Your task to perform on an android device: turn off location history Image 0: 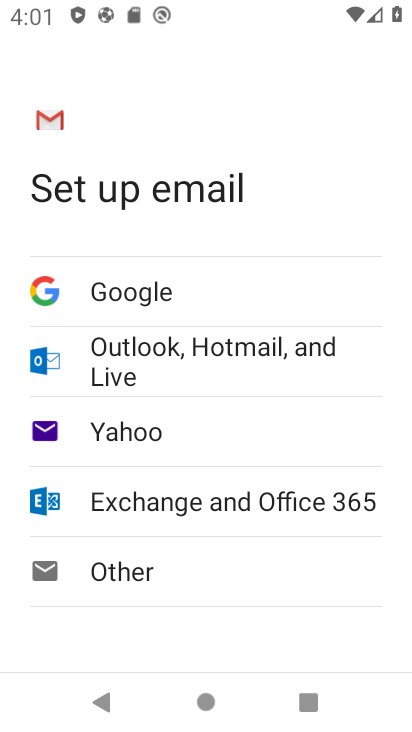
Step 0: press home button
Your task to perform on an android device: turn off location history Image 1: 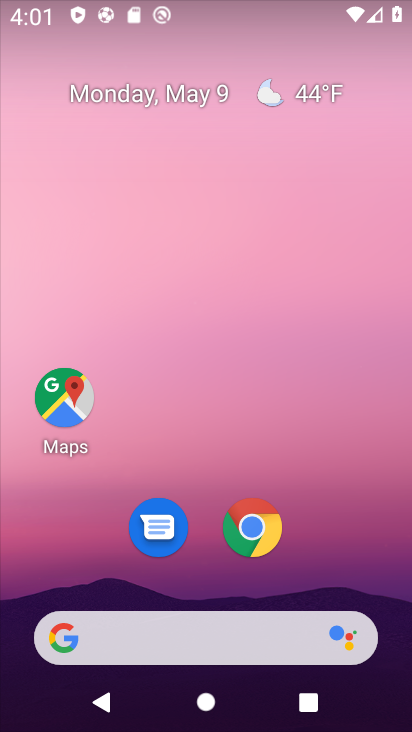
Step 1: drag from (216, 580) to (241, 138)
Your task to perform on an android device: turn off location history Image 2: 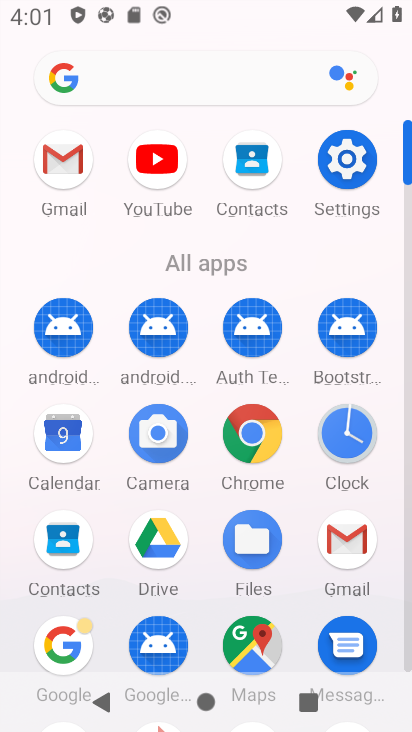
Step 2: click (344, 173)
Your task to perform on an android device: turn off location history Image 3: 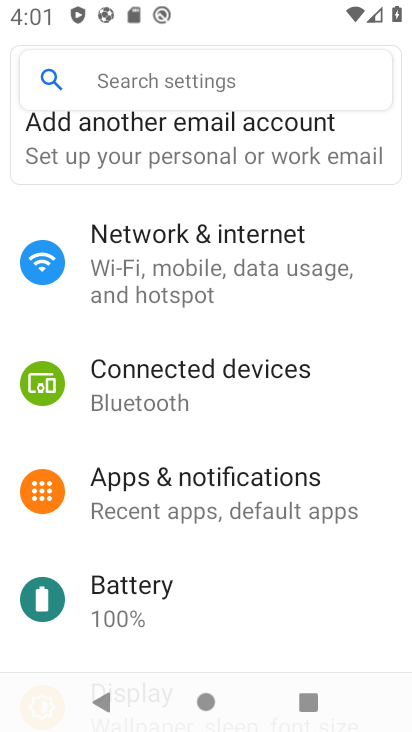
Step 3: drag from (147, 545) to (209, 93)
Your task to perform on an android device: turn off location history Image 4: 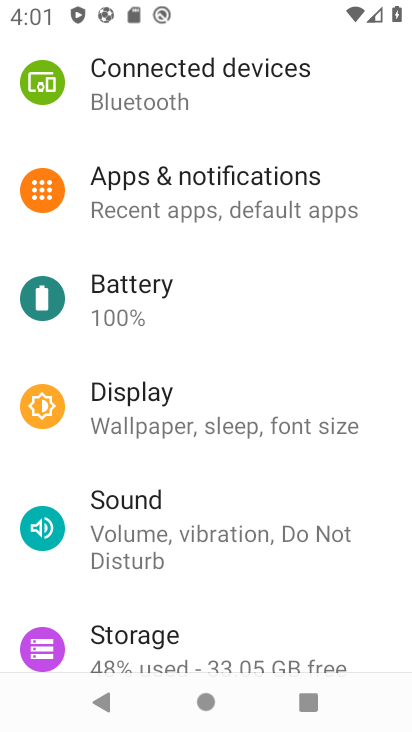
Step 4: drag from (153, 626) to (218, 194)
Your task to perform on an android device: turn off location history Image 5: 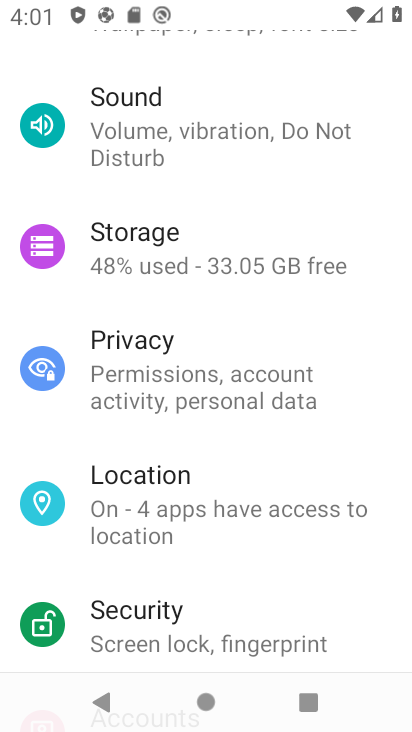
Step 5: click (129, 483)
Your task to perform on an android device: turn off location history Image 6: 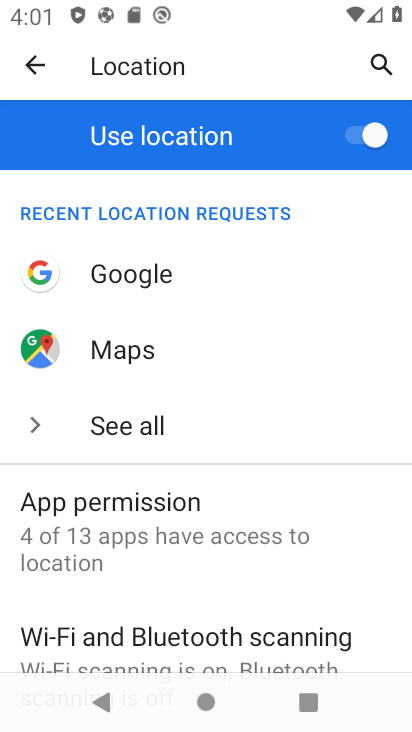
Step 6: drag from (92, 585) to (227, 3)
Your task to perform on an android device: turn off location history Image 7: 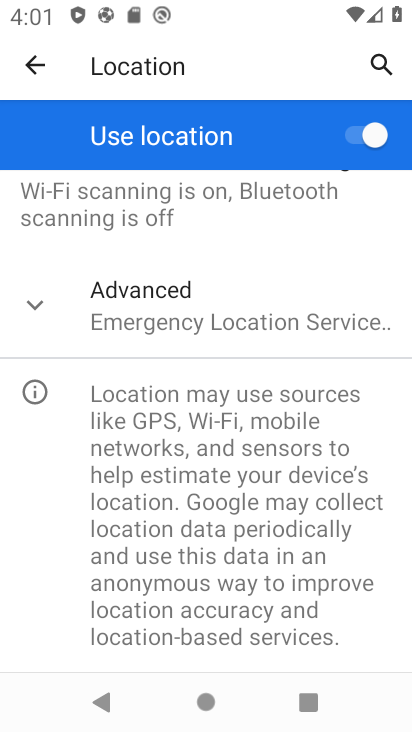
Step 7: click (202, 331)
Your task to perform on an android device: turn off location history Image 8: 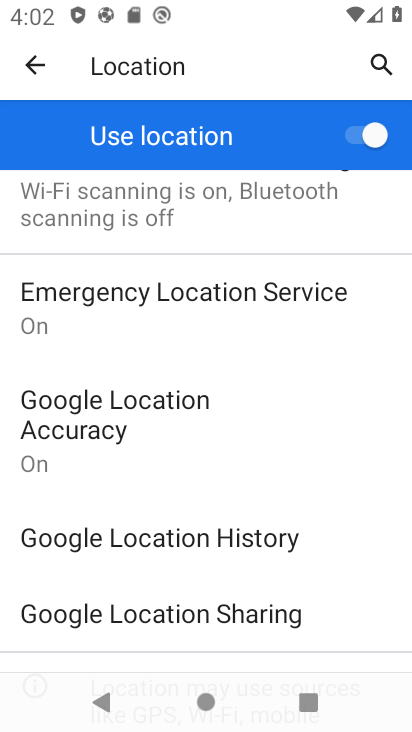
Step 8: click (156, 558)
Your task to perform on an android device: turn off location history Image 9: 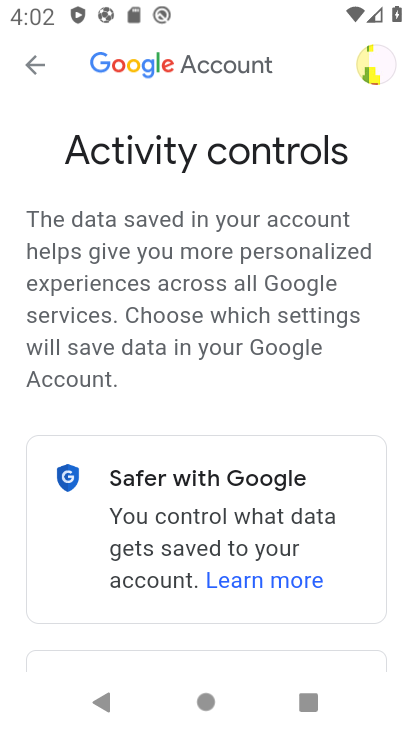
Step 9: drag from (94, 572) to (153, 277)
Your task to perform on an android device: turn off location history Image 10: 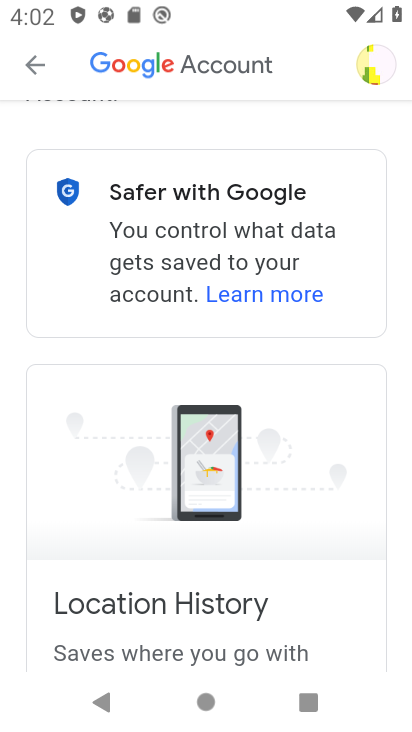
Step 10: drag from (284, 560) to (357, 134)
Your task to perform on an android device: turn off location history Image 11: 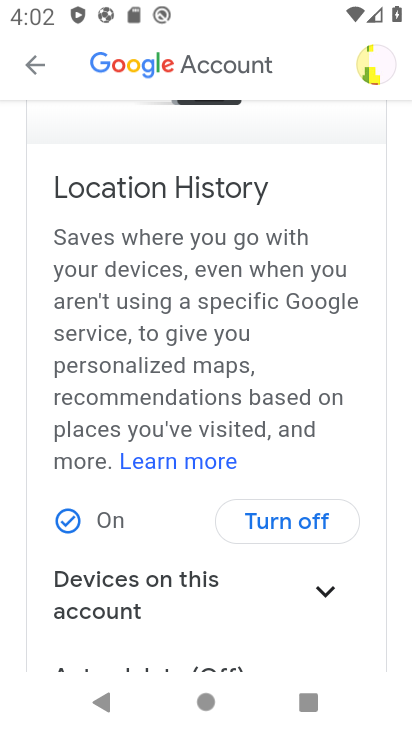
Step 11: click (307, 528)
Your task to perform on an android device: turn off location history Image 12: 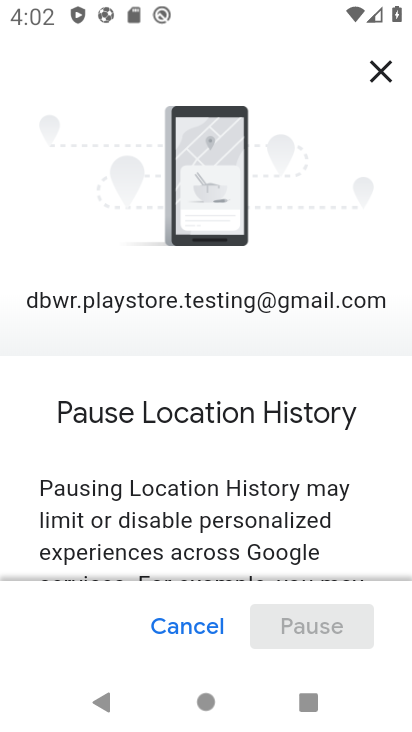
Step 12: drag from (158, 492) to (260, 19)
Your task to perform on an android device: turn off location history Image 13: 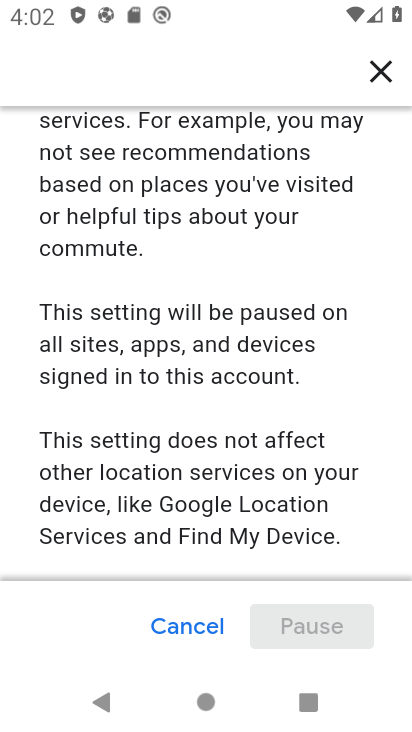
Step 13: drag from (140, 518) to (203, 46)
Your task to perform on an android device: turn off location history Image 14: 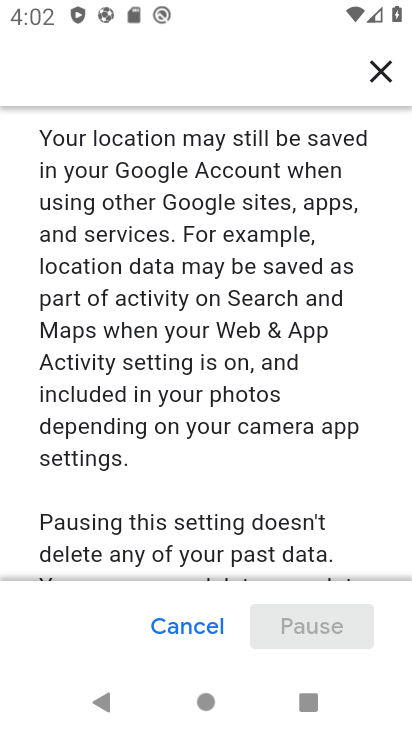
Step 14: drag from (157, 516) to (230, 42)
Your task to perform on an android device: turn off location history Image 15: 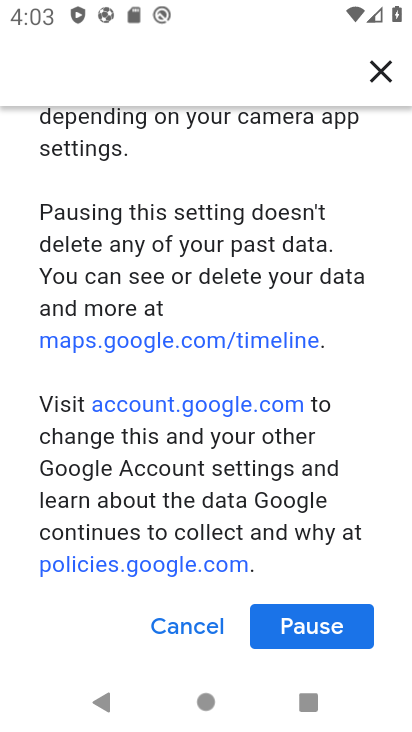
Step 15: click (324, 639)
Your task to perform on an android device: turn off location history Image 16: 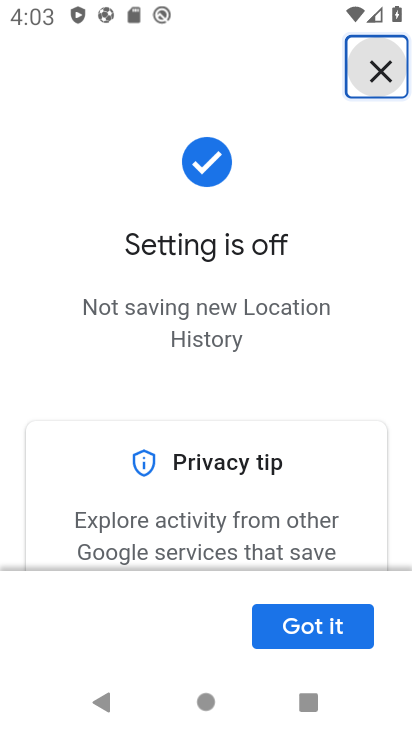
Step 16: click (306, 624)
Your task to perform on an android device: turn off location history Image 17: 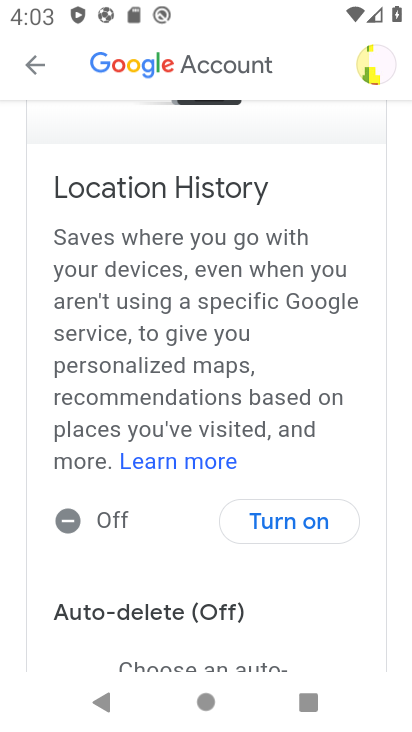
Step 17: task complete